Your task to perform on an android device: open app "Pluto TV - Live TV and Movies" (install if not already installed) Image 0: 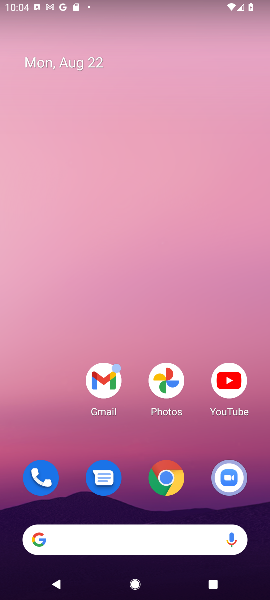
Step 0: drag from (138, 513) to (192, 120)
Your task to perform on an android device: open app "Pluto TV - Live TV and Movies" (install if not already installed) Image 1: 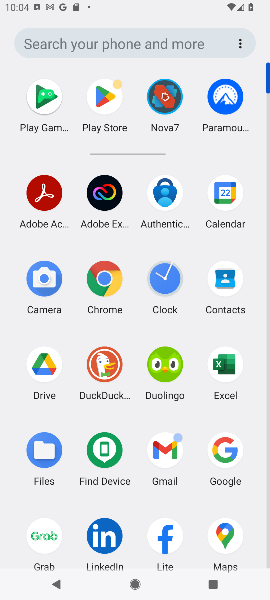
Step 1: click (96, 98)
Your task to perform on an android device: open app "Pluto TV - Live TV and Movies" (install if not already installed) Image 2: 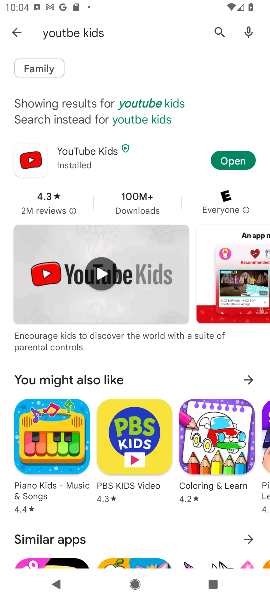
Step 2: click (218, 34)
Your task to perform on an android device: open app "Pluto TV - Live TV and Movies" (install if not already installed) Image 3: 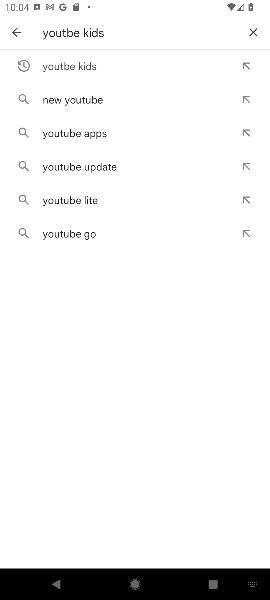
Step 3: click (248, 34)
Your task to perform on an android device: open app "Pluto TV - Live TV and Movies" (install if not already installed) Image 4: 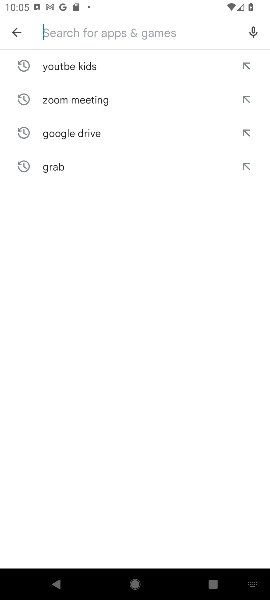
Step 4: type "pluto"
Your task to perform on an android device: open app "Pluto TV - Live TV and Movies" (install if not already installed) Image 5: 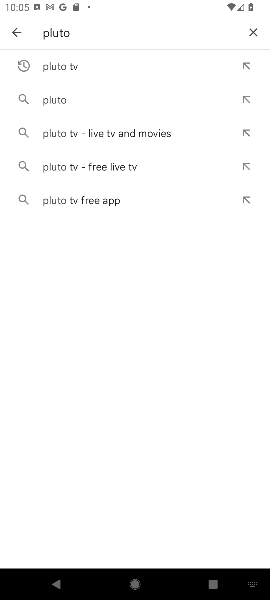
Step 5: click (125, 72)
Your task to perform on an android device: open app "Pluto TV - Live TV and Movies" (install if not already installed) Image 6: 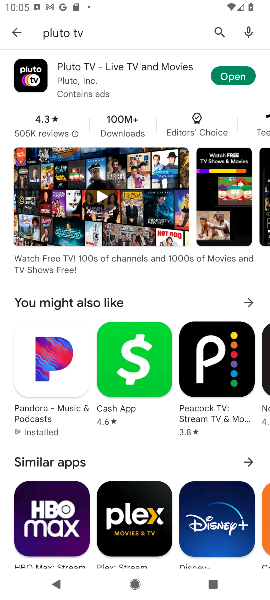
Step 6: click (221, 68)
Your task to perform on an android device: open app "Pluto TV - Live TV and Movies" (install if not already installed) Image 7: 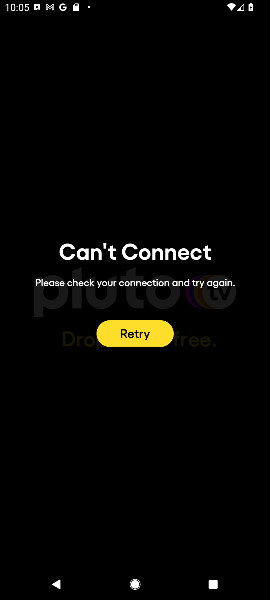
Step 7: task complete